Your task to perform on an android device: change text size in settings app Image 0: 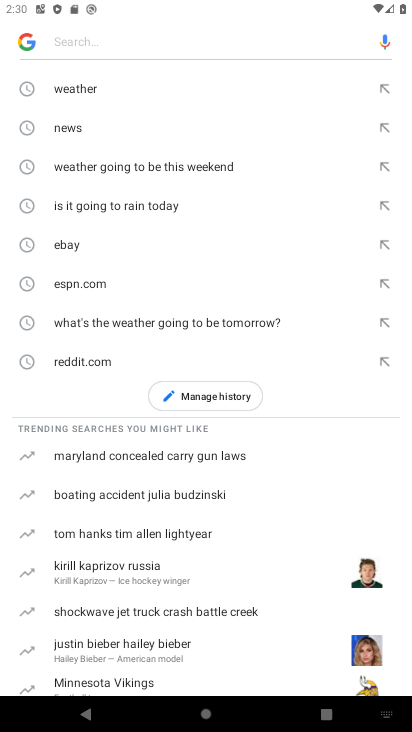
Step 0: press home button
Your task to perform on an android device: change text size in settings app Image 1: 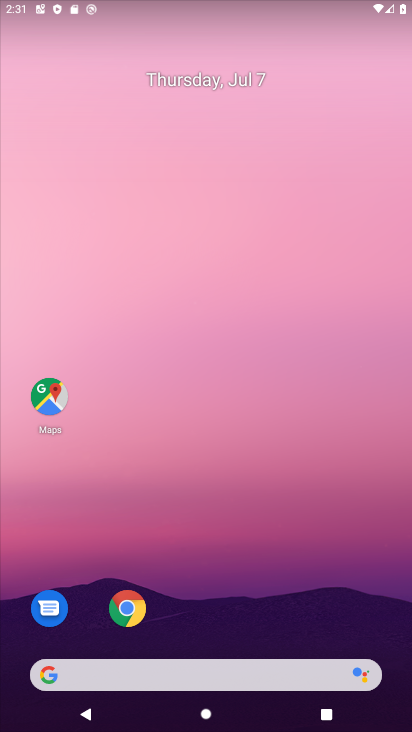
Step 1: drag from (382, 640) to (284, 104)
Your task to perform on an android device: change text size in settings app Image 2: 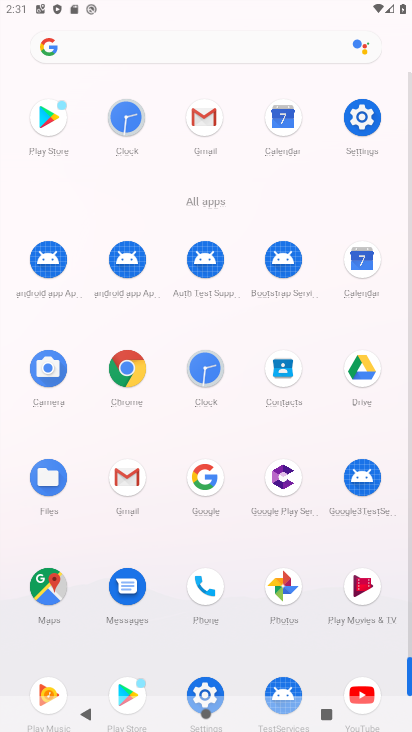
Step 2: click (411, 622)
Your task to perform on an android device: change text size in settings app Image 3: 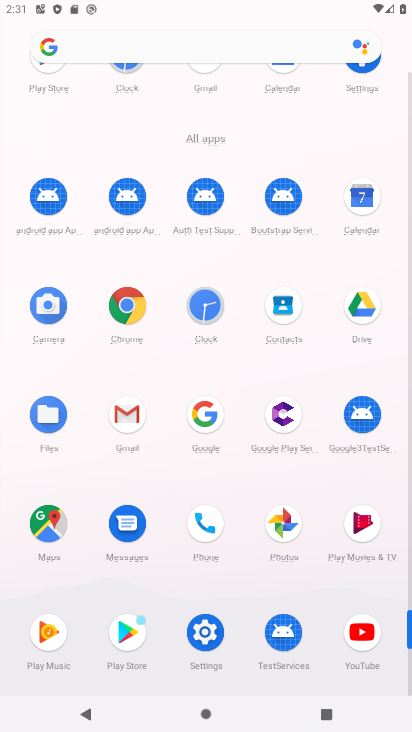
Step 3: click (205, 632)
Your task to perform on an android device: change text size in settings app Image 4: 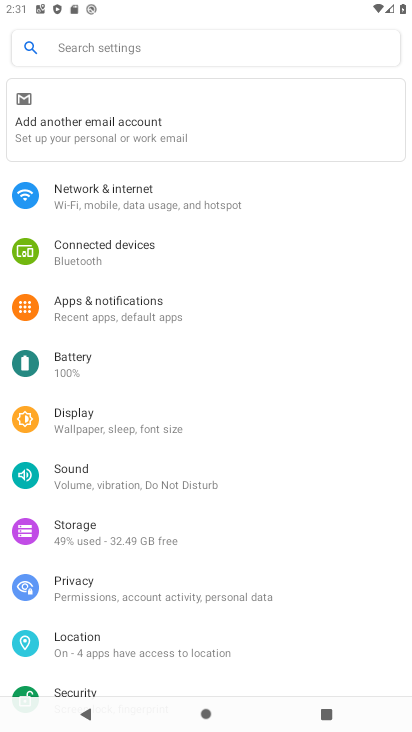
Step 4: drag from (322, 588) to (311, 352)
Your task to perform on an android device: change text size in settings app Image 5: 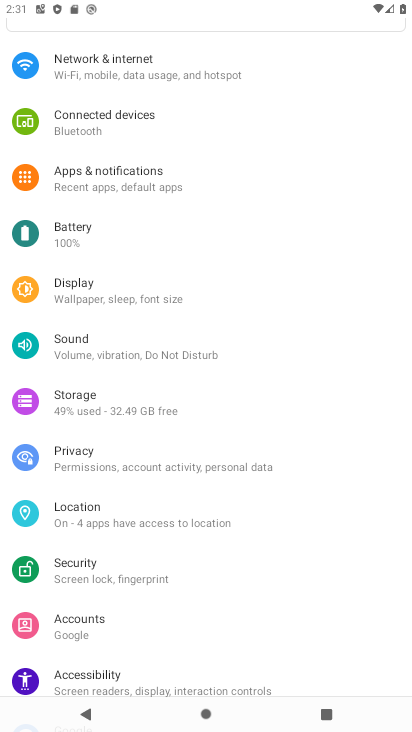
Step 5: drag from (296, 629) to (289, 282)
Your task to perform on an android device: change text size in settings app Image 6: 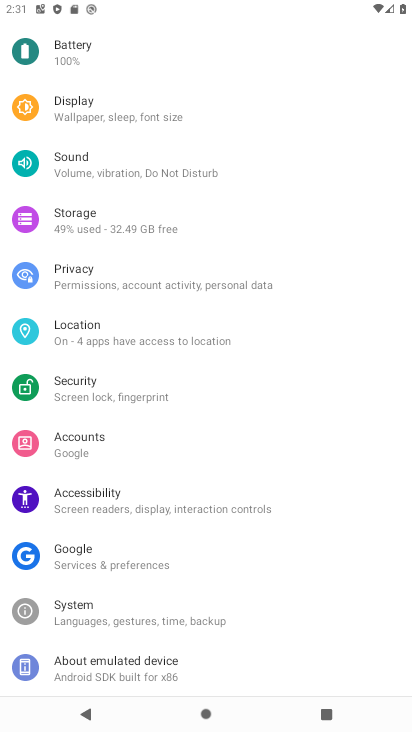
Step 6: click (90, 109)
Your task to perform on an android device: change text size in settings app Image 7: 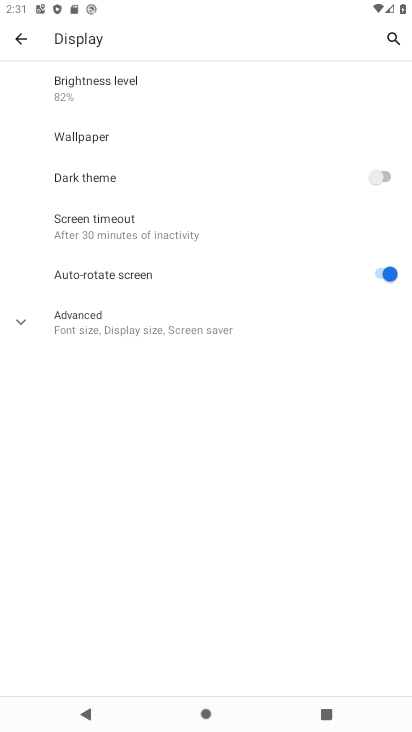
Step 7: click (49, 319)
Your task to perform on an android device: change text size in settings app Image 8: 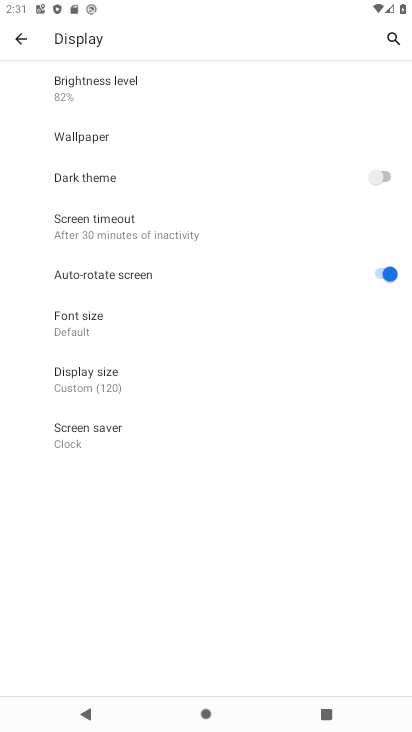
Step 8: click (71, 322)
Your task to perform on an android device: change text size in settings app Image 9: 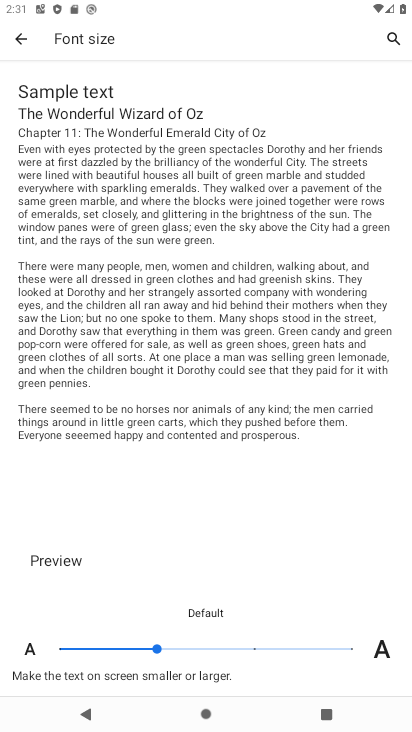
Step 9: click (251, 649)
Your task to perform on an android device: change text size in settings app Image 10: 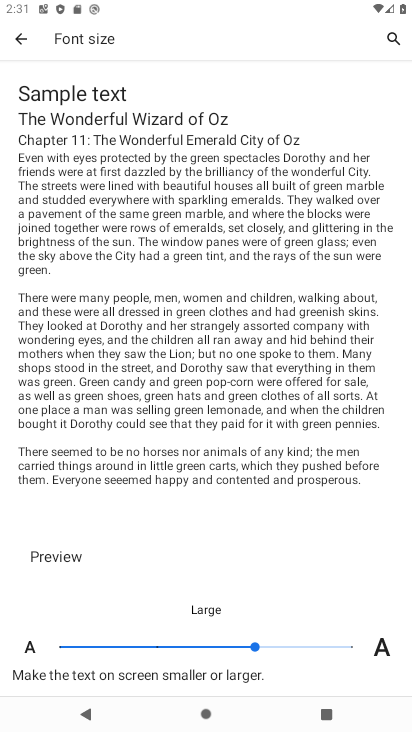
Step 10: click (355, 652)
Your task to perform on an android device: change text size in settings app Image 11: 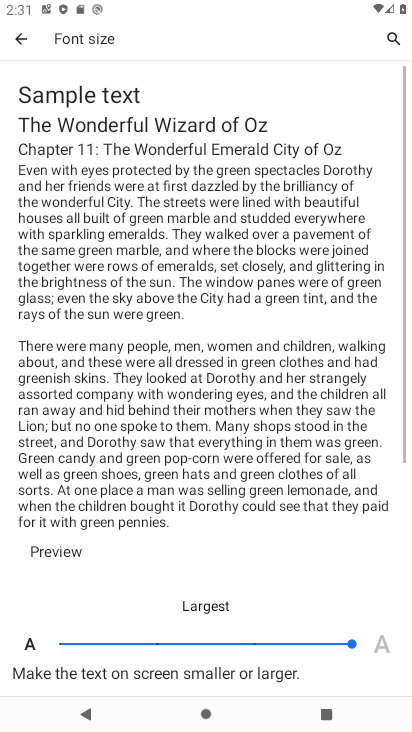
Step 11: task complete